Your task to perform on an android device: toggle notifications settings in the gmail app Image 0: 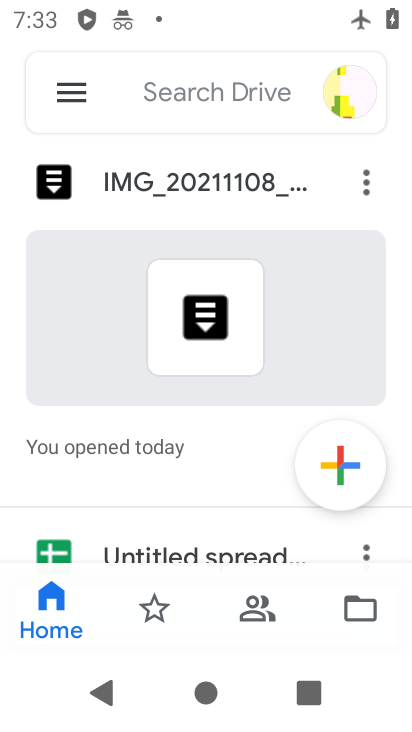
Step 0: press home button
Your task to perform on an android device: toggle notifications settings in the gmail app Image 1: 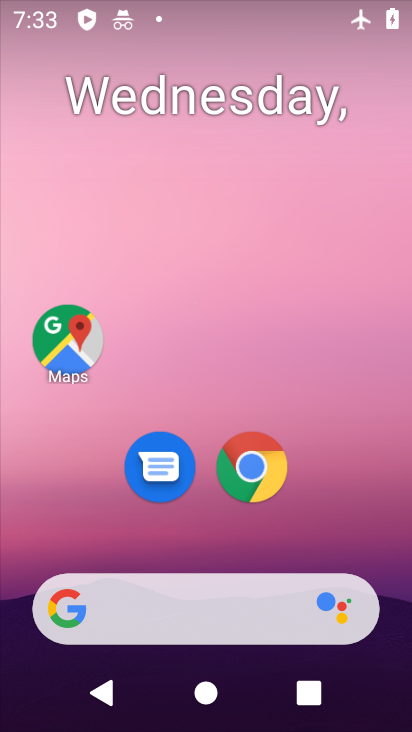
Step 1: drag from (407, 400) to (392, 129)
Your task to perform on an android device: toggle notifications settings in the gmail app Image 2: 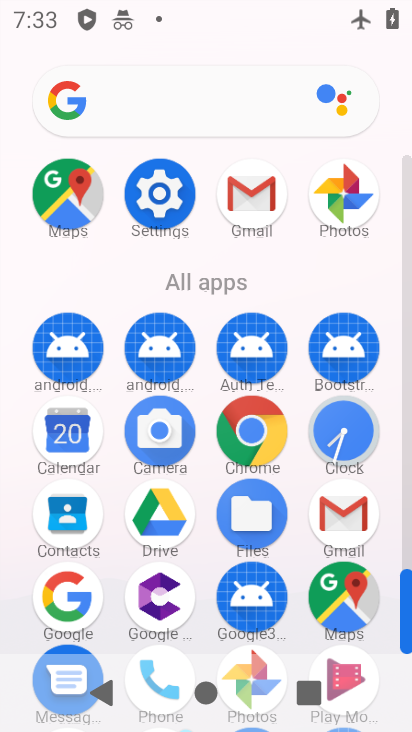
Step 2: click (334, 507)
Your task to perform on an android device: toggle notifications settings in the gmail app Image 3: 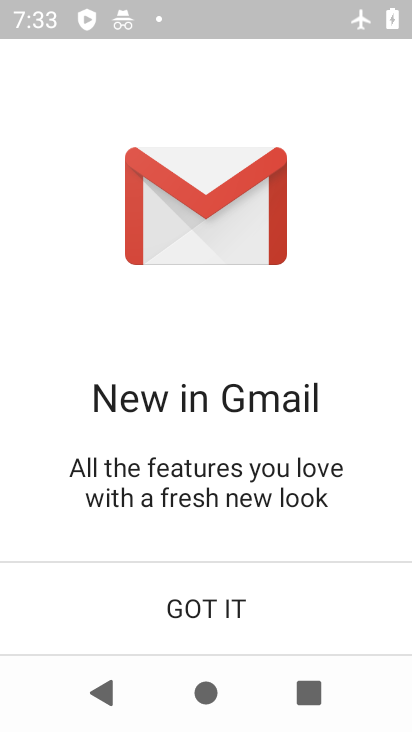
Step 3: click (184, 598)
Your task to perform on an android device: toggle notifications settings in the gmail app Image 4: 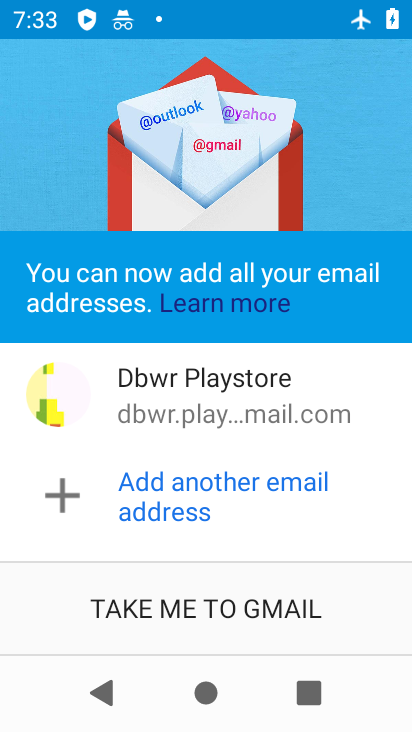
Step 4: click (184, 607)
Your task to perform on an android device: toggle notifications settings in the gmail app Image 5: 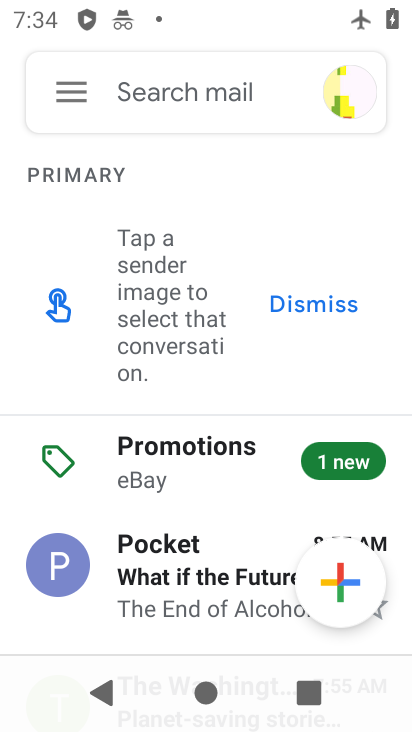
Step 5: click (52, 86)
Your task to perform on an android device: toggle notifications settings in the gmail app Image 6: 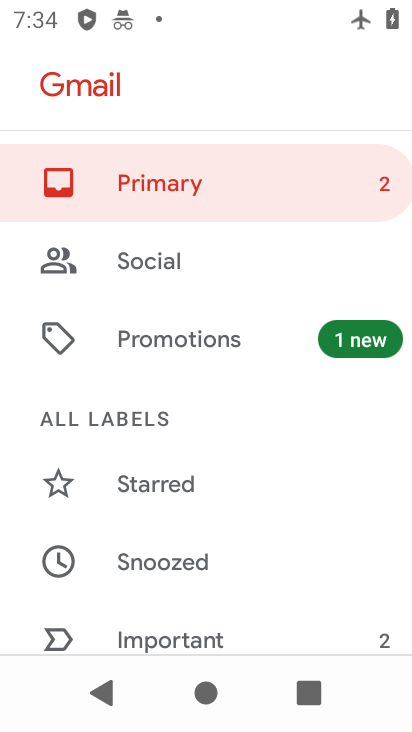
Step 6: drag from (272, 589) to (287, 233)
Your task to perform on an android device: toggle notifications settings in the gmail app Image 7: 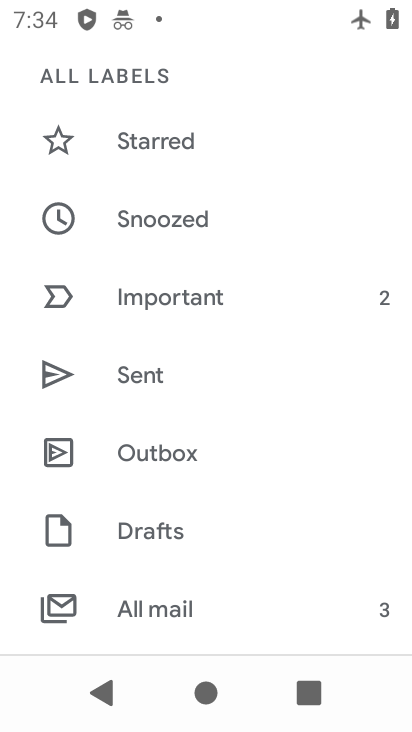
Step 7: drag from (263, 572) to (268, 287)
Your task to perform on an android device: toggle notifications settings in the gmail app Image 8: 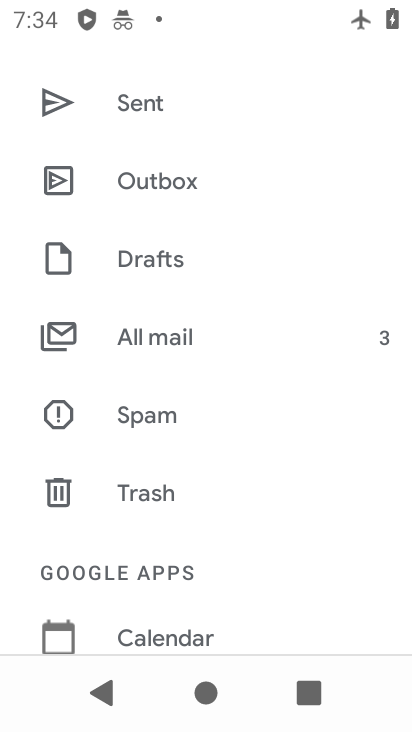
Step 8: drag from (261, 590) to (269, 197)
Your task to perform on an android device: toggle notifications settings in the gmail app Image 9: 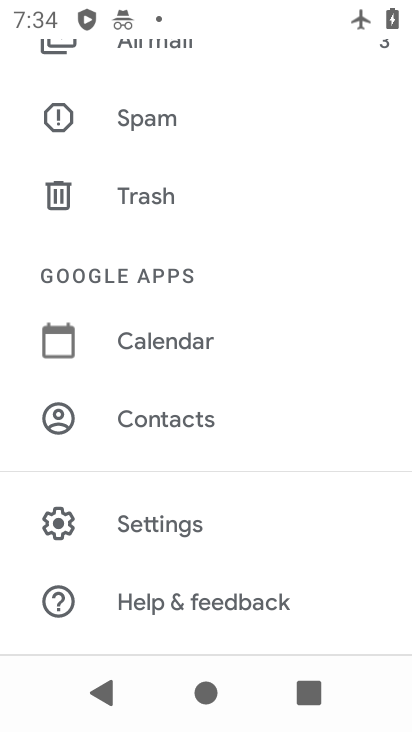
Step 9: click (161, 523)
Your task to perform on an android device: toggle notifications settings in the gmail app Image 10: 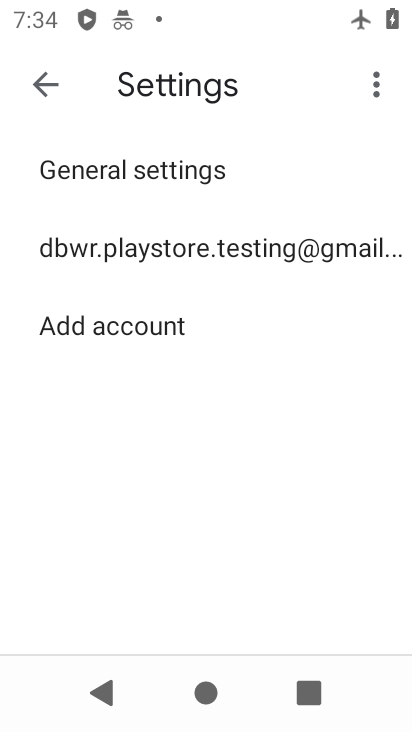
Step 10: click (109, 169)
Your task to perform on an android device: toggle notifications settings in the gmail app Image 11: 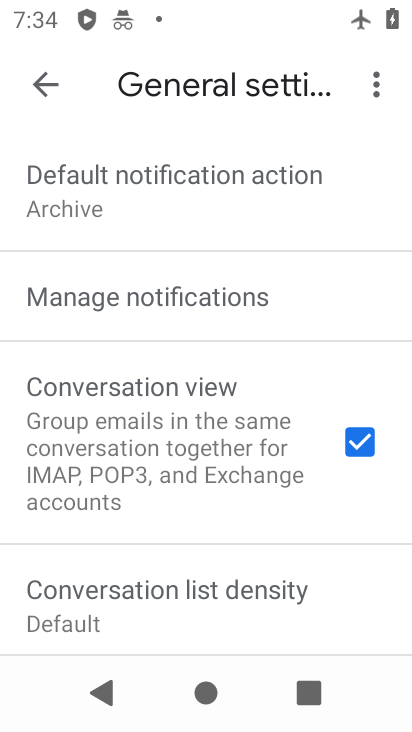
Step 11: click (115, 285)
Your task to perform on an android device: toggle notifications settings in the gmail app Image 12: 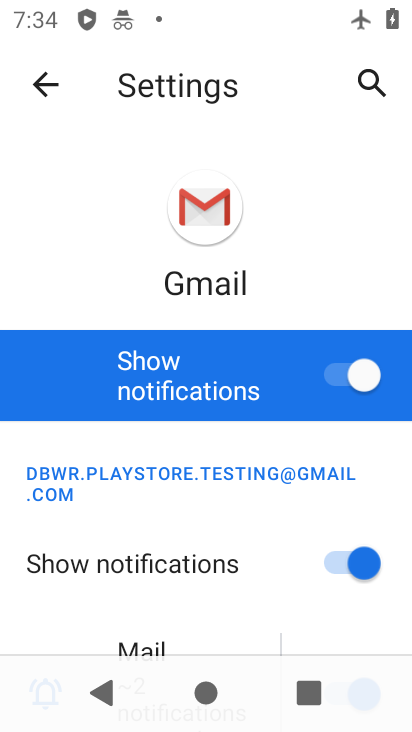
Step 12: click (337, 381)
Your task to perform on an android device: toggle notifications settings in the gmail app Image 13: 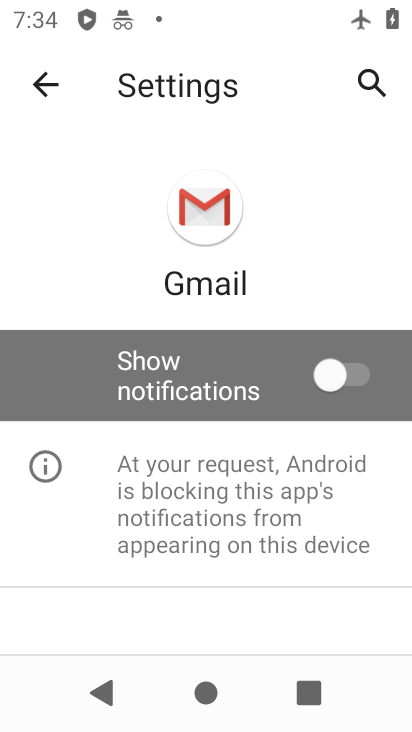
Step 13: task complete